Your task to perform on an android device: Turn off the flashlight Image 0: 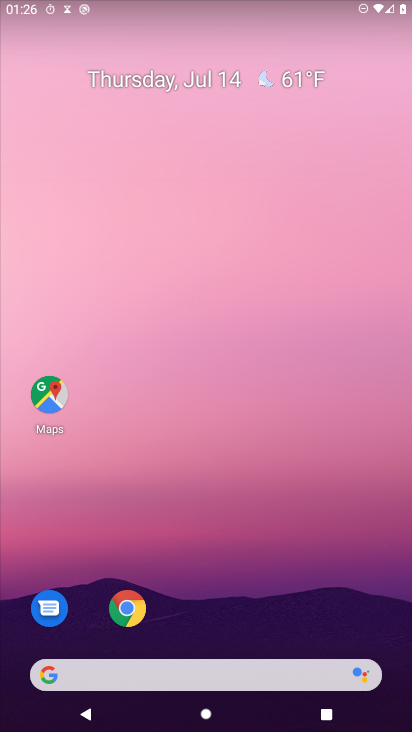
Step 0: press home button
Your task to perform on an android device: Turn off the flashlight Image 1: 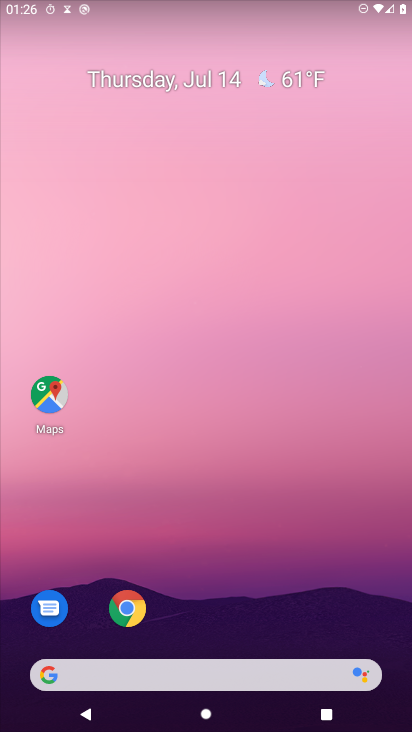
Step 1: task complete